Your task to perform on an android device: Show the shopping cart on bestbuy. Image 0: 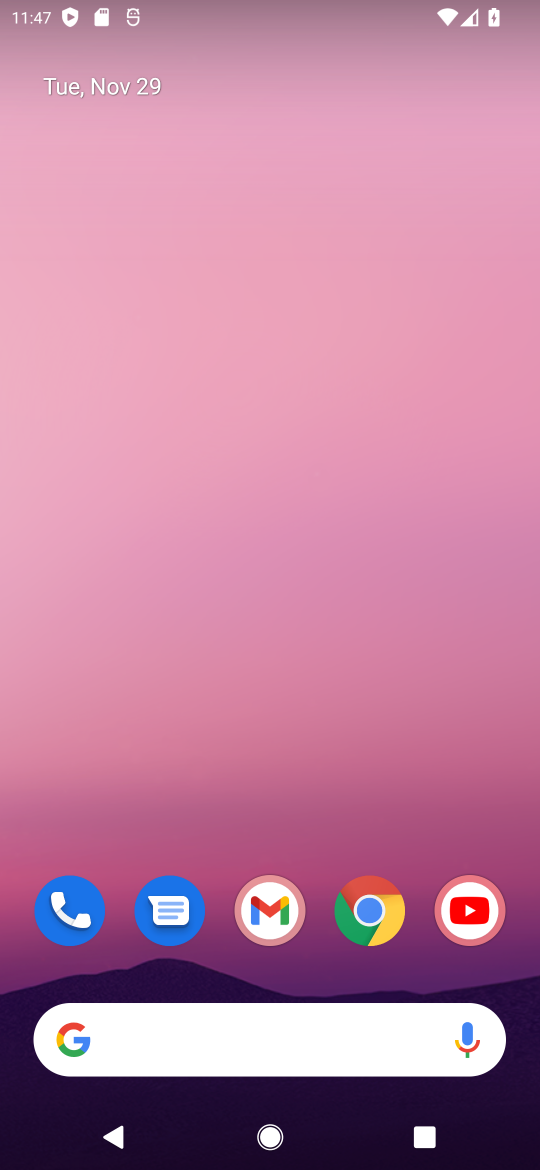
Step 0: click (382, 920)
Your task to perform on an android device: Show the shopping cart on bestbuy. Image 1: 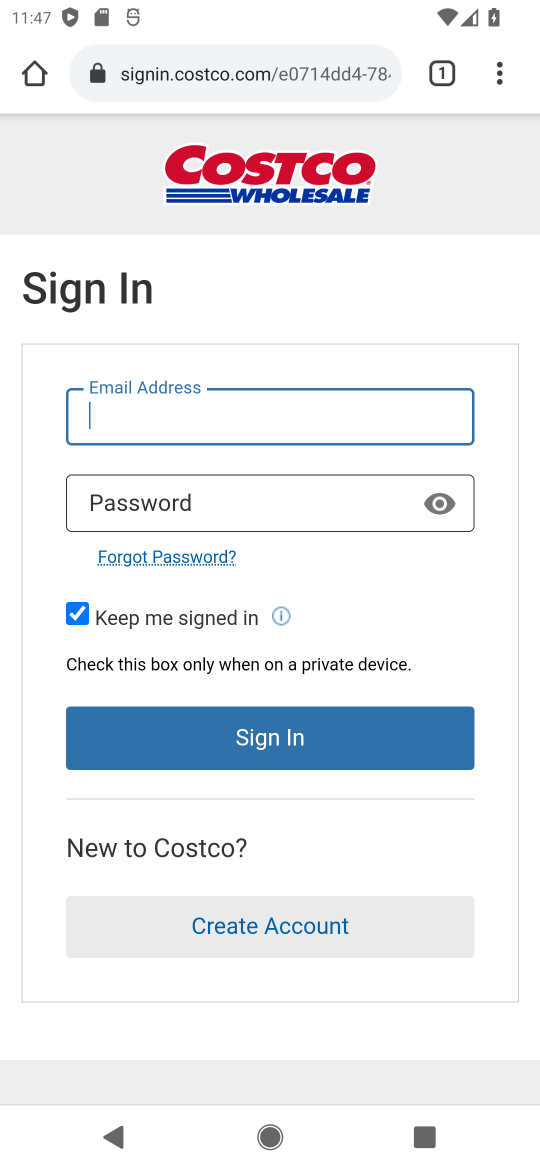
Step 1: click (222, 74)
Your task to perform on an android device: Show the shopping cart on bestbuy. Image 2: 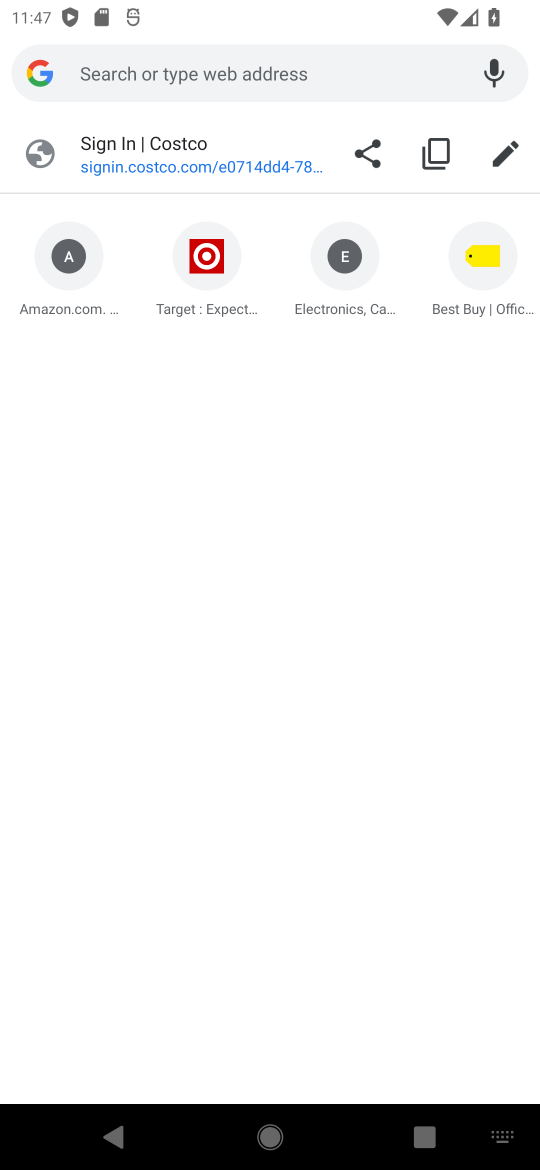
Step 2: click (485, 273)
Your task to perform on an android device: Show the shopping cart on bestbuy. Image 3: 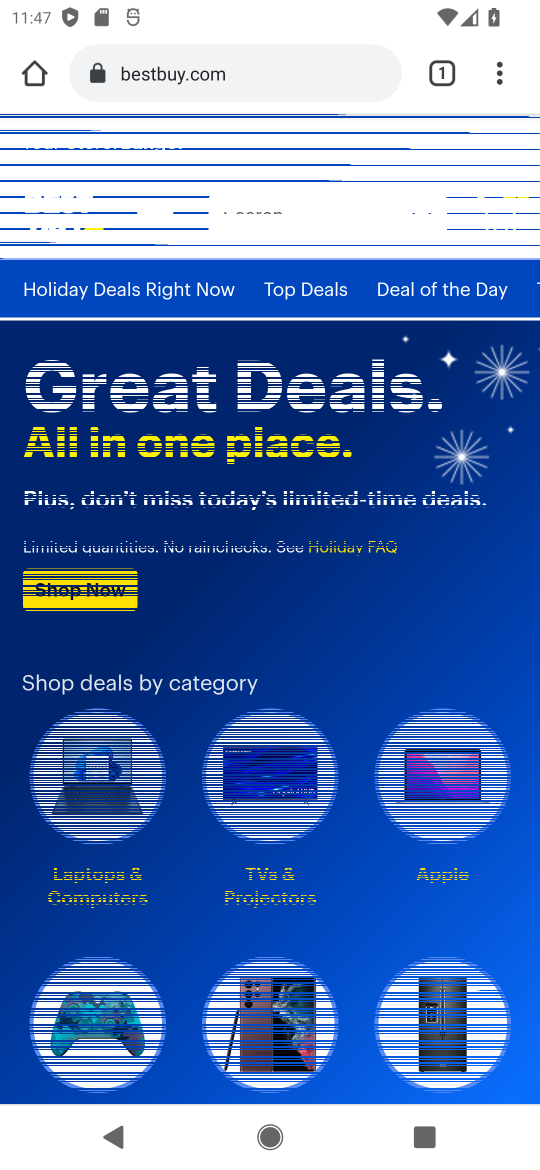
Step 3: click (510, 226)
Your task to perform on an android device: Show the shopping cart on bestbuy. Image 4: 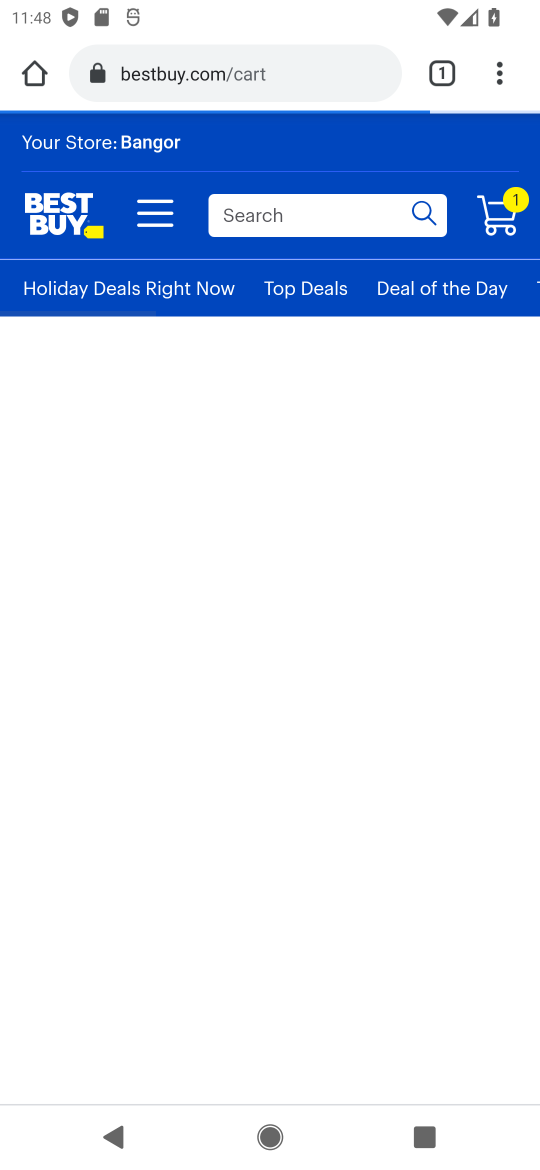
Step 4: click (503, 221)
Your task to perform on an android device: Show the shopping cart on bestbuy. Image 5: 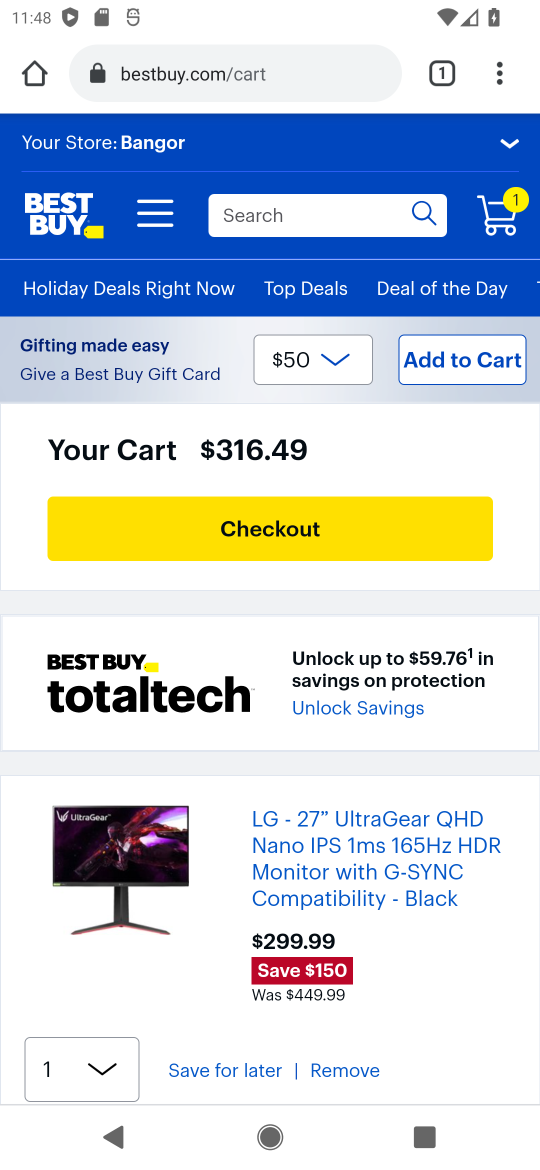
Step 5: task complete